Your task to perform on an android device: set default search engine in the chrome app Image 0: 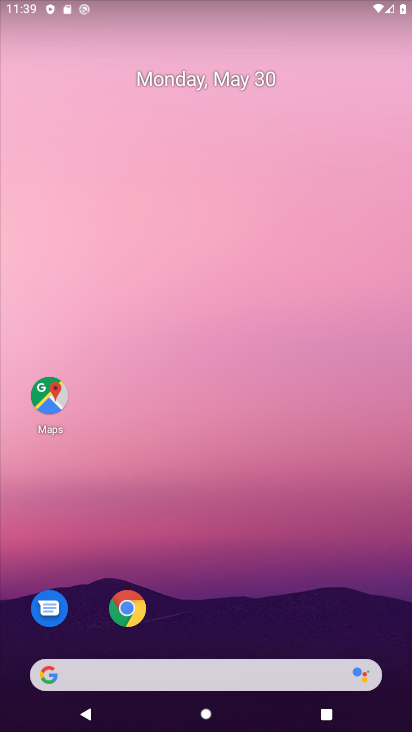
Step 0: click (126, 612)
Your task to perform on an android device: set default search engine in the chrome app Image 1: 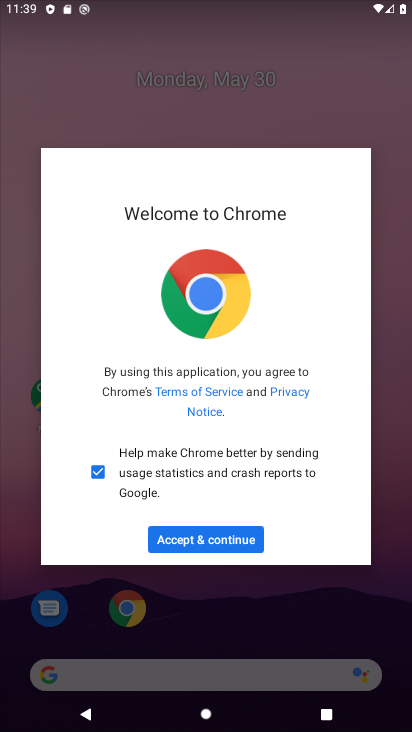
Step 1: click (234, 533)
Your task to perform on an android device: set default search engine in the chrome app Image 2: 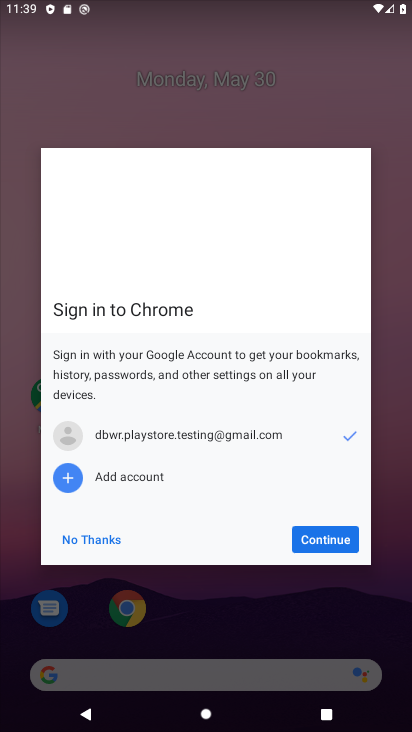
Step 2: click (301, 532)
Your task to perform on an android device: set default search engine in the chrome app Image 3: 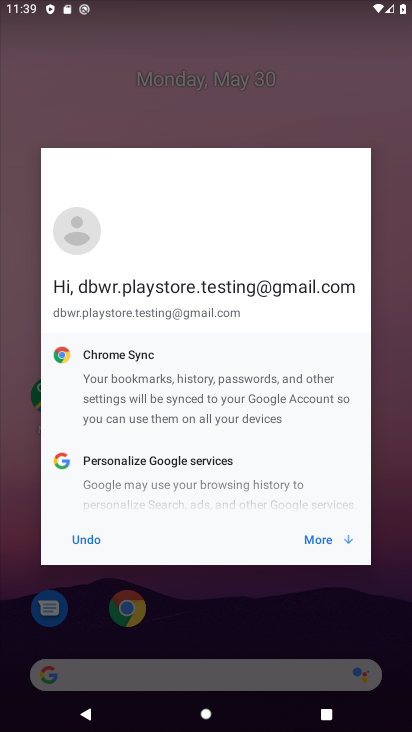
Step 3: click (311, 538)
Your task to perform on an android device: set default search engine in the chrome app Image 4: 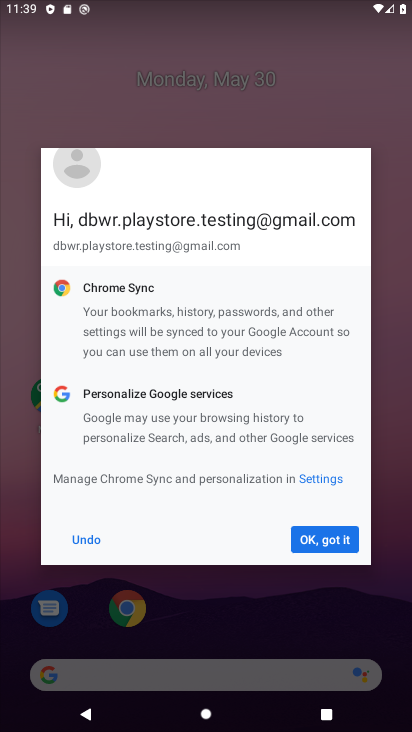
Step 4: click (311, 538)
Your task to perform on an android device: set default search engine in the chrome app Image 5: 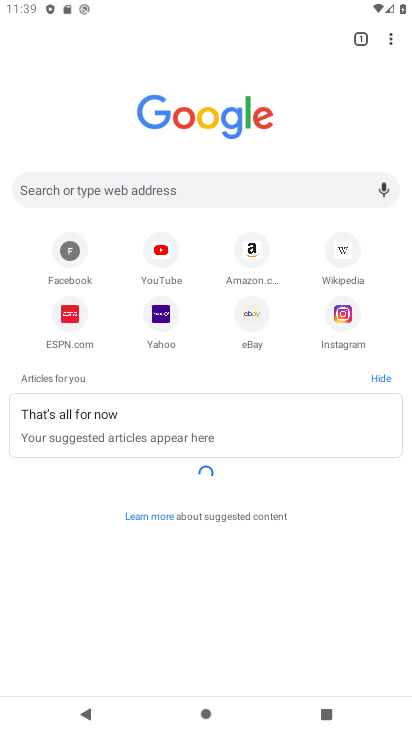
Step 5: click (387, 44)
Your task to perform on an android device: set default search engine in the chrome app Image 6: 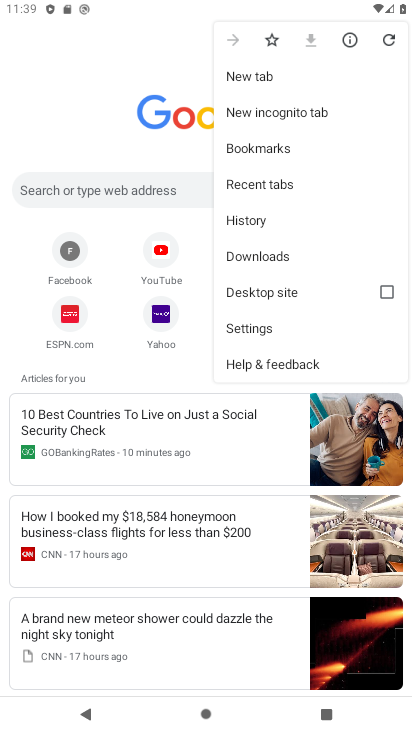
Step 6: click (291, 325)
Your task to perform on an android device: set default search engine in the chrome app Image 7: 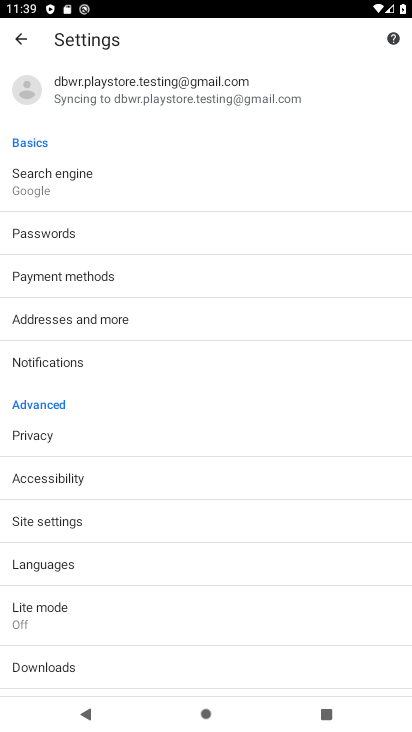
Step 7: click (150, 178)
Your task to perform on an android device: set default search engine in the chrome app Image 8: 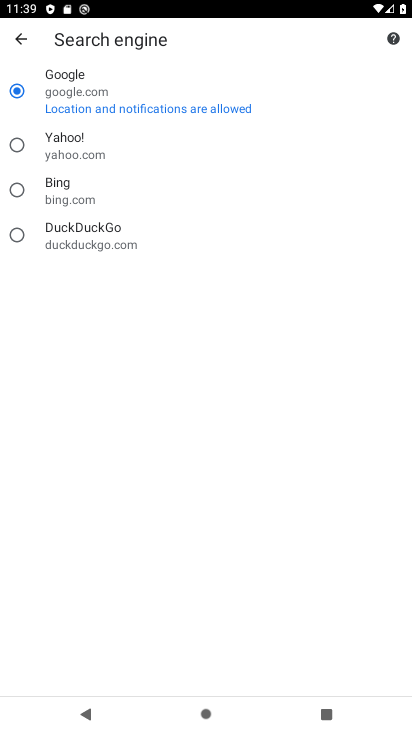
Step 8: click (87, 161)
Your task to perform on an android device: set default search engine in the chrome app Image 9: 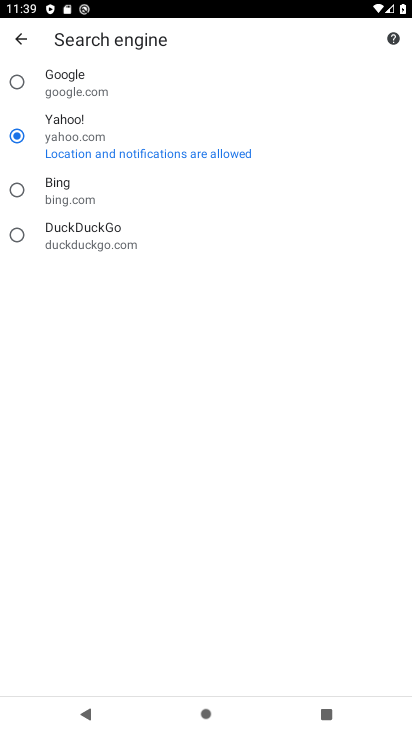
Step 9: task complete